Your task to perform on an android device: turn on airplane mode Image 0: 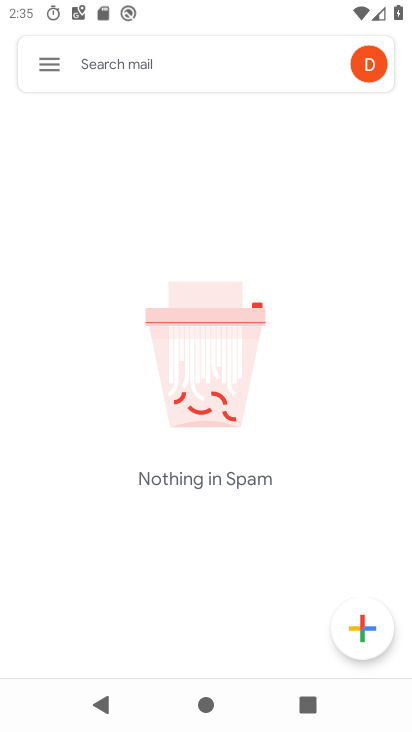
Step 0: press home button
Your task to perform on an android device: turn on airplane mode Image 1: 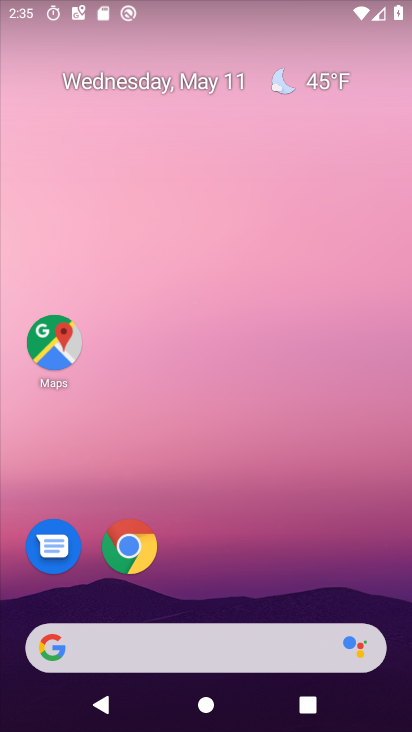
Step 1: drag from (221, 541) to (303, 4)
Your task to perform on an android device: turn on airplane mode Image 2: 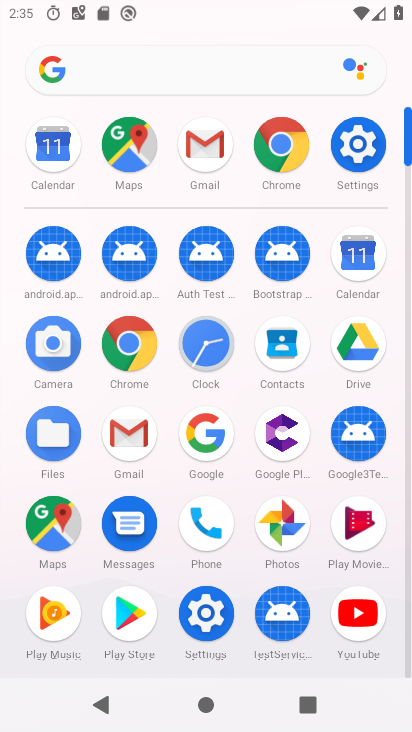
Step 2: click (351, 210)
Your task to perform on an android device: turn on airplane mode Image 3: 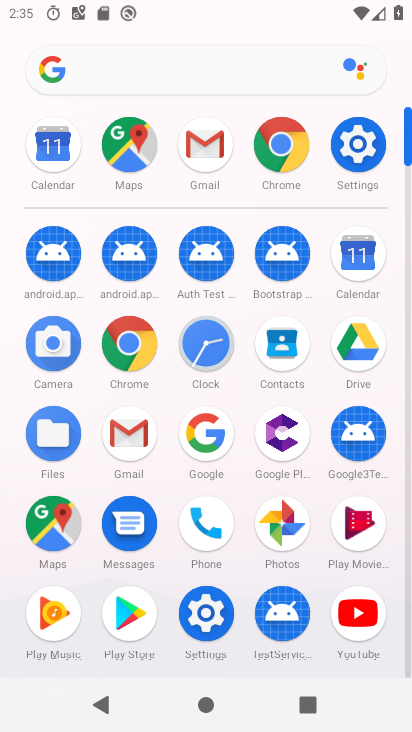
Step 3: click (351, 160)
Your task to perform on an android device: turn on airplane mode Image 4: 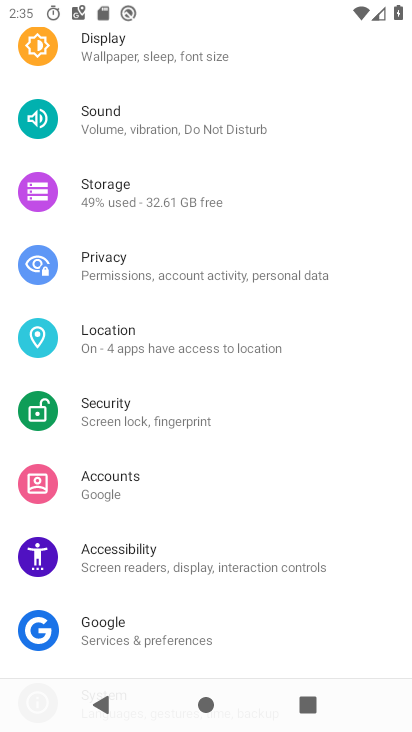
Step 4: drag from (207, 171) to (126, 720)
Your task to perform on an android device: turn on airplane mode Image 5: 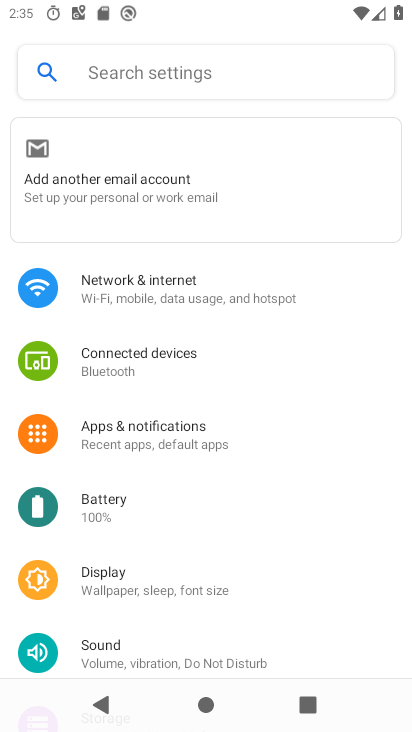
Step 5: click (207, 297)
Your task to perform on an android device: turn on airplane mode Image 6: 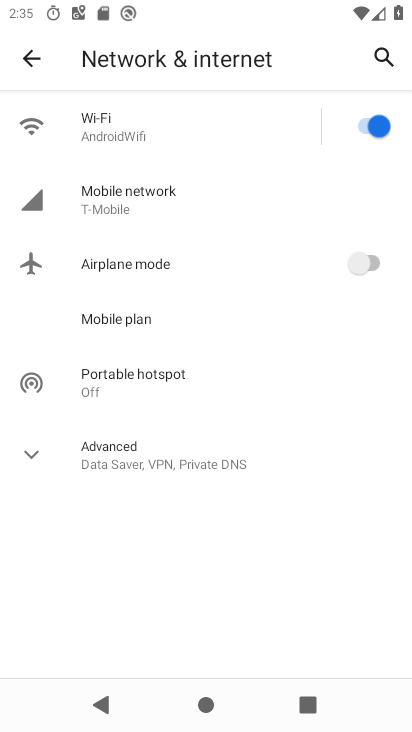
Step 6: click (331, 267)
Your task to perform on an android device: turn on airplane mode Image 7: 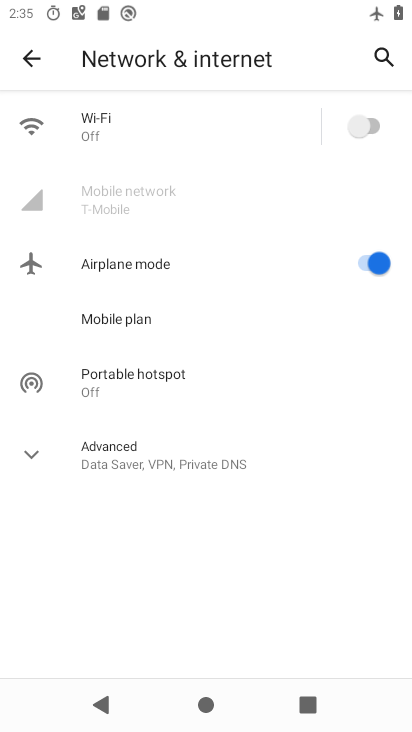
Step 7: task complete